Your task to perform on an android device: Clear the shopping cart on bestbuy.com. Search for beats solo 3 on bestbuy.com, select the first entry, and add it to the cart. Image 0: 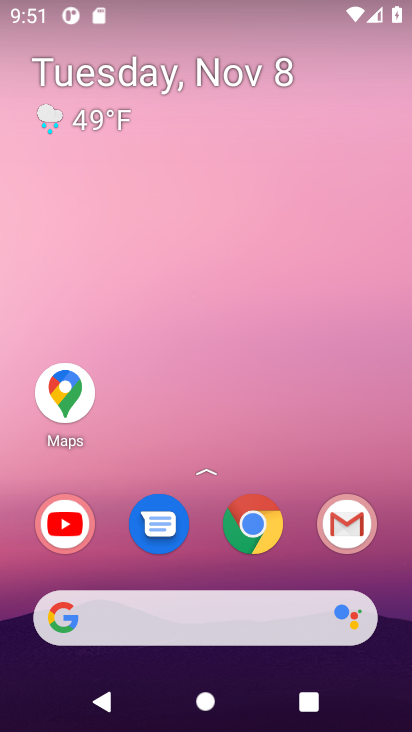
Step 0: click (258, 538)
Your task to perform on an android device: Clear the shopping cart on bestbuy.com. Search for beats solo 3 on bestbuy.com, select the first entry, and add it to the cart. Image 1: 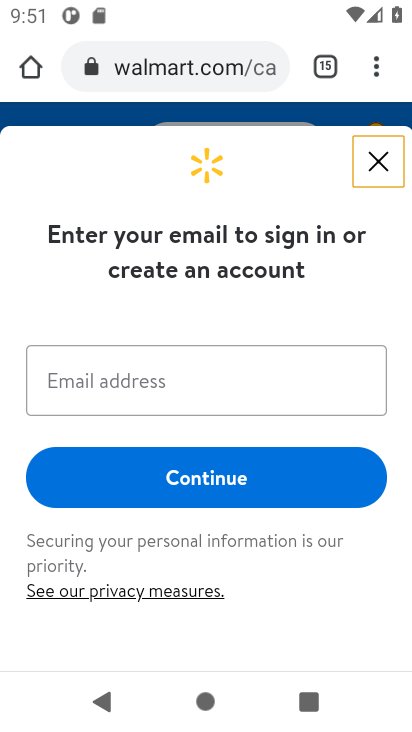
Step 1: click (210, 65)
Your task to perform on an android device: Clear the shopping cart on bestbuy.com. Search for beats solo 3 on bestbuy.com, select the first entry, and add it to the cart. Image 2: 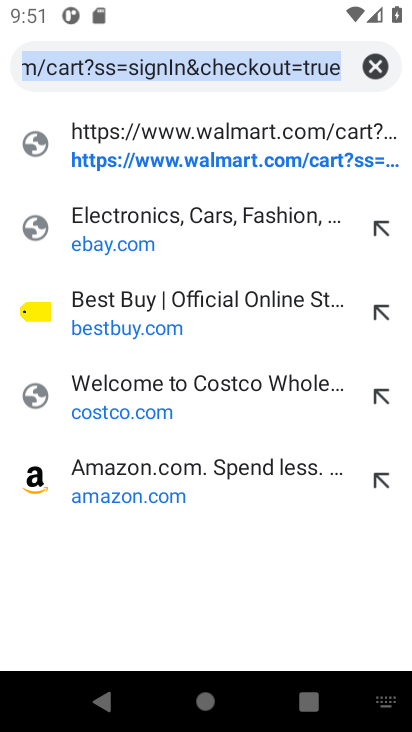
Step 2: click (116, 342)
Your task to perform on an android device: Clear the shopping cart on bestbuy.com. Search for beats solo 3 on bestbuy.com, select the first entry, and add it to the cart. Image 3: 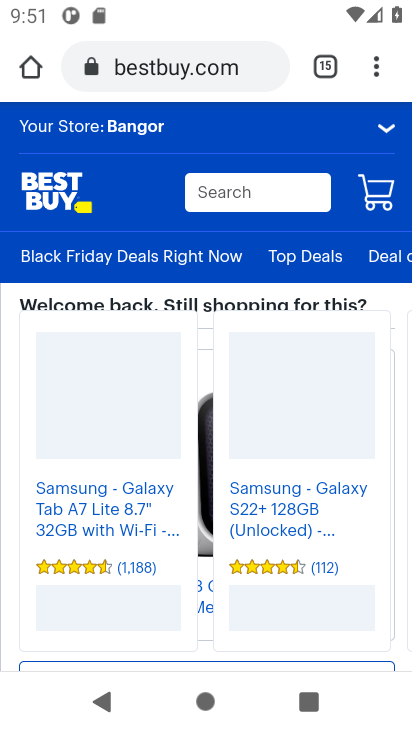
Step 3: click (376, 198)
Your task to perform on an android device: Clear the shopping cart on bestbuy.com. Search for beats solo 3 on bestbuy.com, select the first entry, and add it to the cart. Image 4: 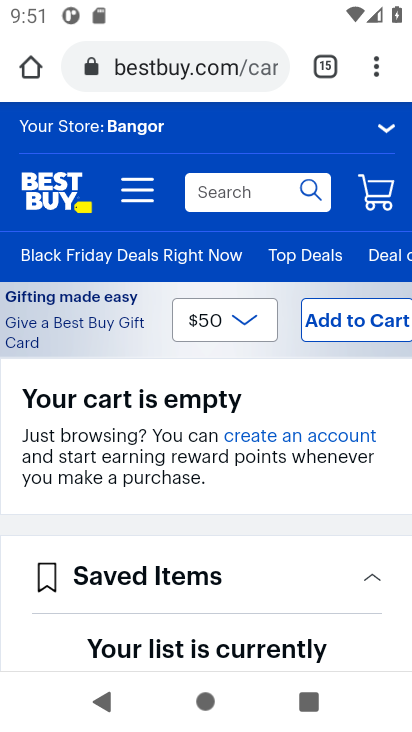
Step 4: click (218, 197)
Your task to perform on an android device: Clear the shopping cart on bestbuy.com. Search for beats solo 3 on bestbuy.com, select the first entry, and add it to the cart. Image 5: 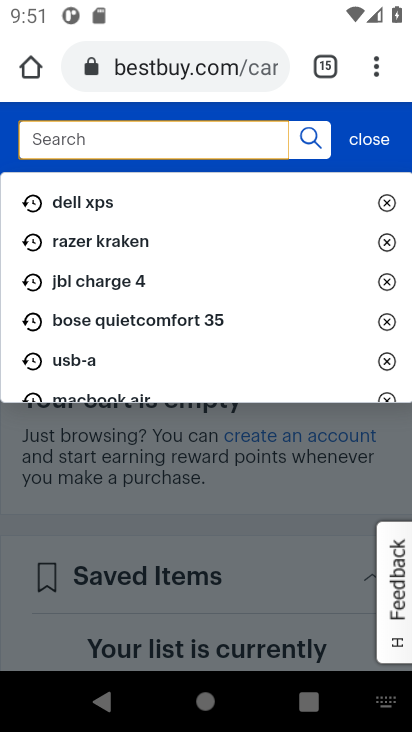
Step 5: type "beats solo 3"
Your task to perform on an android device: Clear the shopping cart on bestbuy.com. Search for beats solo 3 on bestbuy.com, select the first entry, and add it to the cart. Image 6: 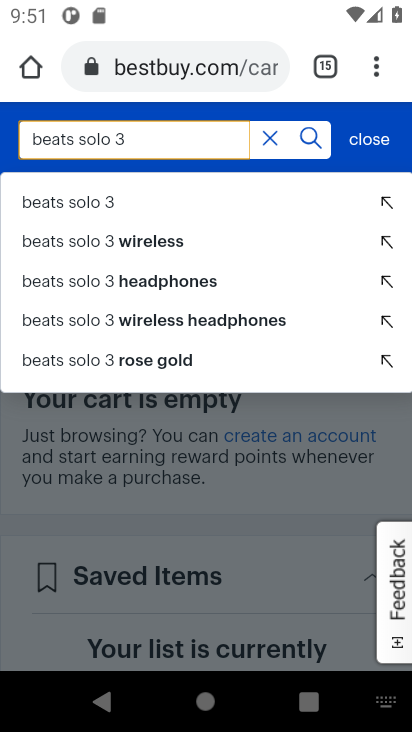
Step 6: click (68, 208)
Your task to perform on an android device: Clear the shopping cart on bestbuy.com. Search for beats solo 3 on bestbuy.com, select the first entry, and add it to the cart. Image 7: 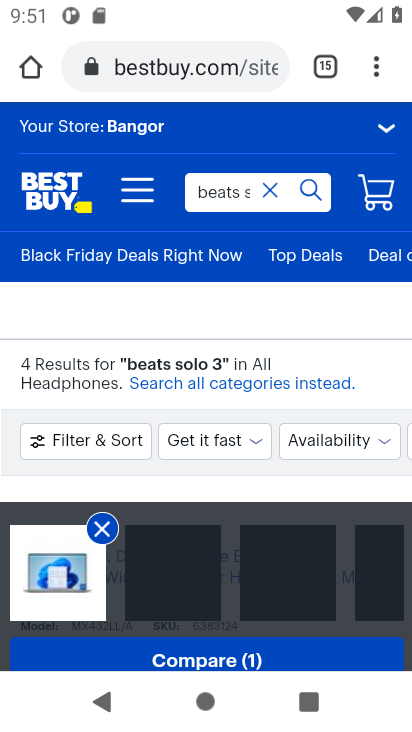
Step 7: drag from (213, 477) to (198, 266)
Your task to perform on an android device: Clear the shopping cart on bestbuy.com. Search for beats solo 3 on bestbuy.com, select the first entry, and add it to the cart. Image 8: 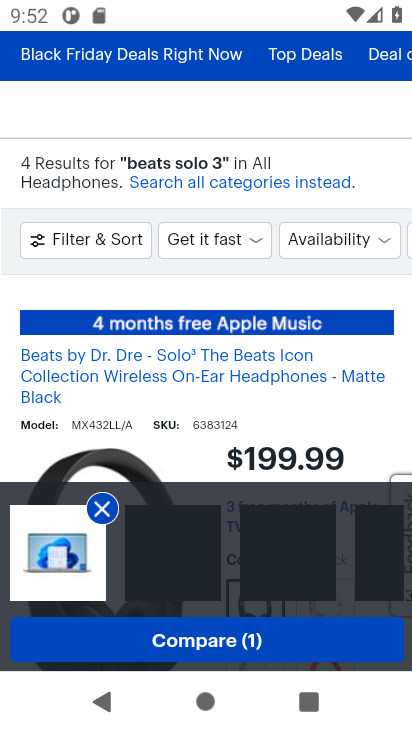
Step 8: drag from (180, 416) to (176, 279)
Your task to perform on an android device: Clear the shopping cart on bestbuy.com. Search for beats solo 3 on bestbuy.com, select the first entry, and add it to the cart. Image 9: 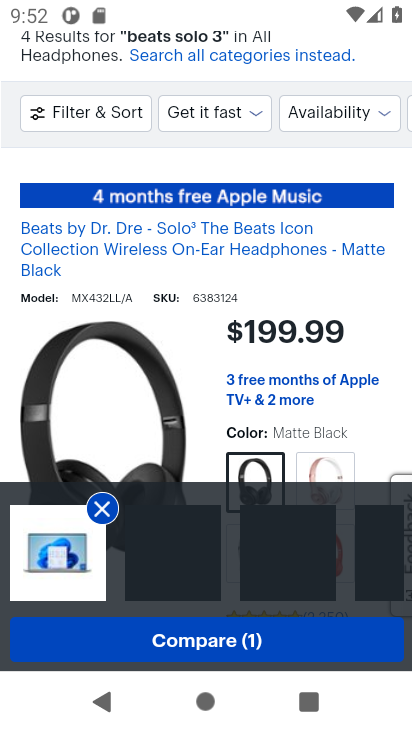
Step 9: drag from (156, 400) to (149, 226)
Your task to perform on an android device: Clear the shopping cart on bestbuy.com. Search for beats solo 3 on bestbuy.com, select the first entry, and add it to the cart. Image 10: 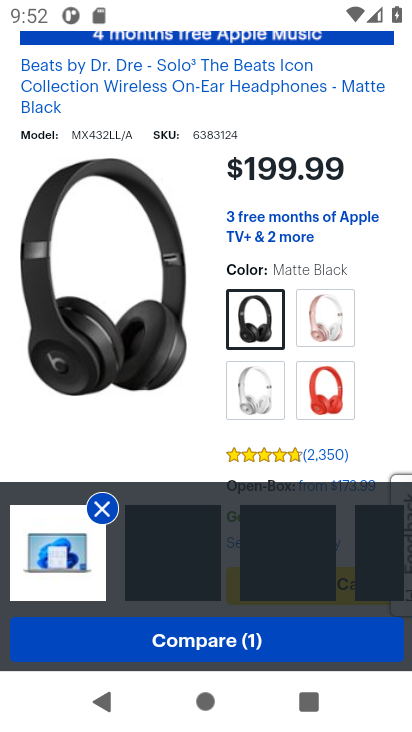
Step 10: drag from (179, 380) to (184, 137)
Your task to perform on an android device: Clear the shopping cart on bestbuy.com. Search for beats solo 3 on bestbuy.com, select the first entry, and add it to the cart. Image 11: 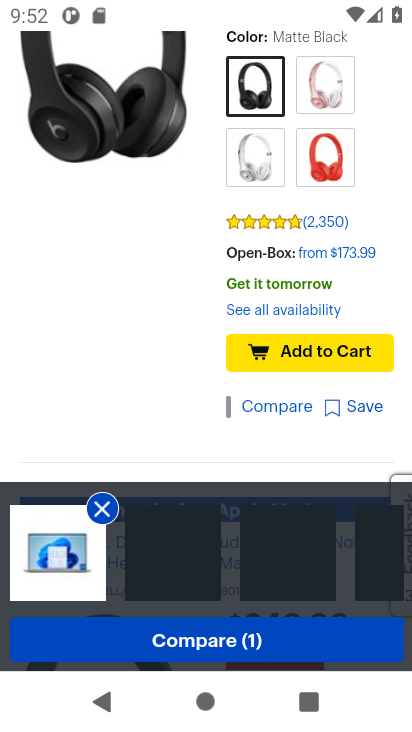
Step 11: click (305, 356)
Your task to perform on an android device: Clear the shopping cart on bestbuy.com. Search for beats solo 3 on bestbuy.com, select the first entry, and add it to the cart. Image 12: 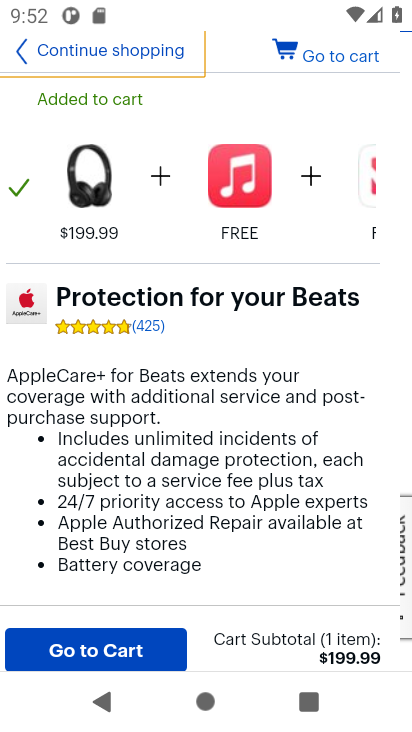
Step 12: task complete